Your task to perform on an android device: Show me productivity apps on the Play Store Image 0: 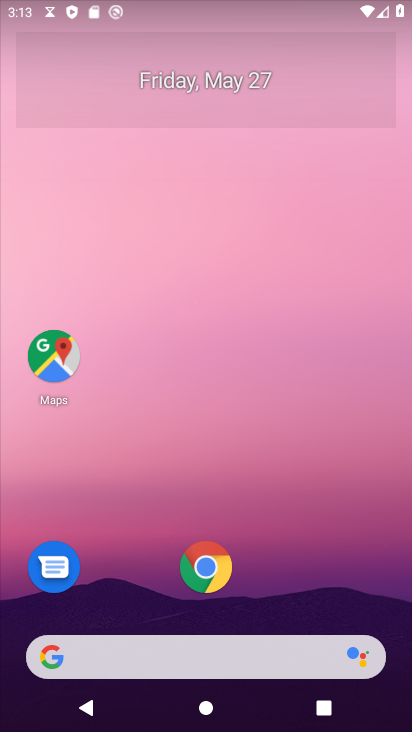
Step 0: drag from (148, 624) to (216, 96)
Your task to perform on an android device: Show me productivity apps on the Play Store Image 1: 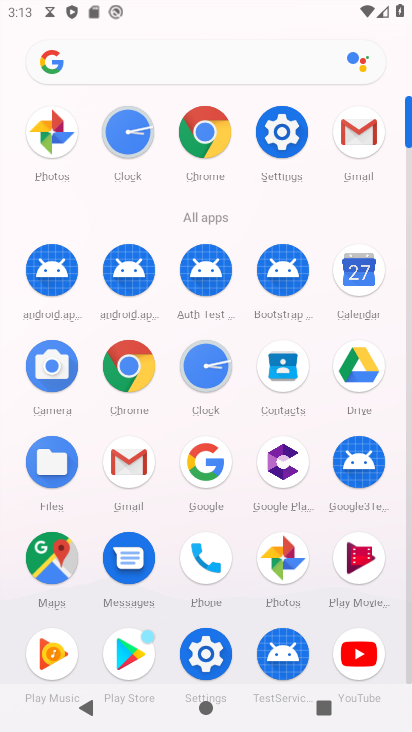
Step 1: click (142, 650)
Your task to perform on an android device: Show me productivity apps on the Play Store Image 2: 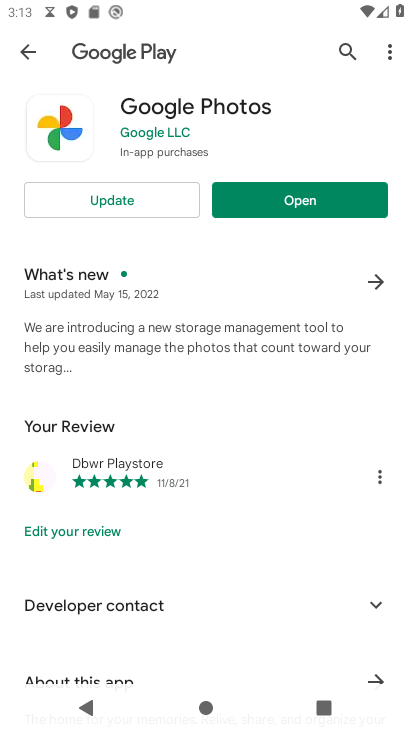
Step 2: click (26, 45)
Your task to perform on an android device: Show me productivity apps on the Play Store Image 3: 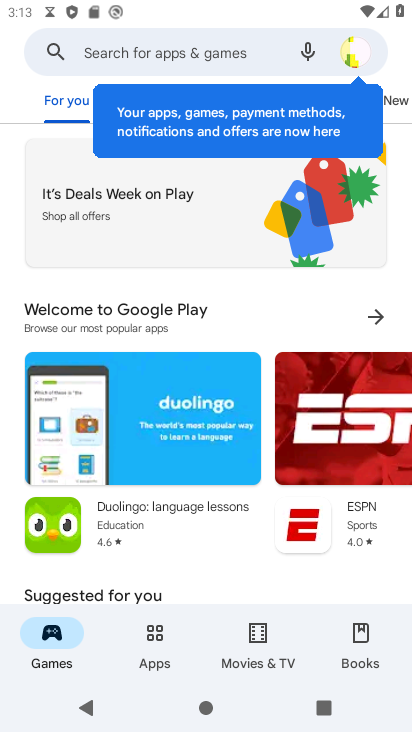
Step 3: click (166, 661)
Your task to perform on an android device: Show me productivity apps on the Play Store Image 4: 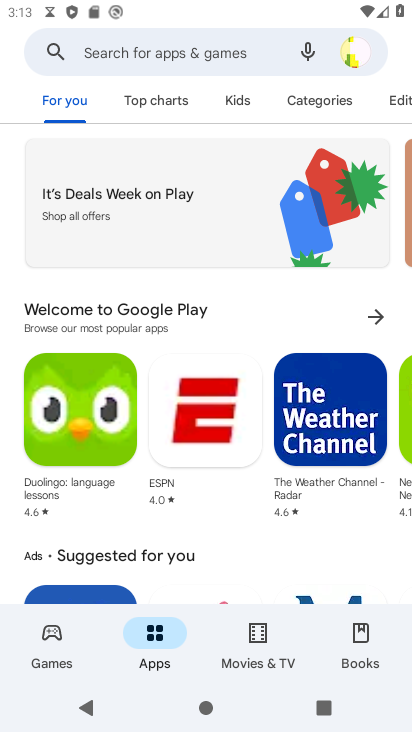
Step 4: drag from (213, 510) to (254, 341)
Your task to perform on an android device: Show me productivity apps on the Play Store Image 5: 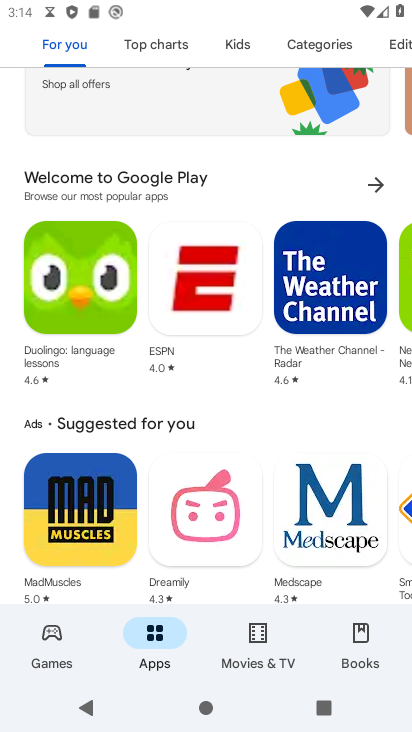
Step 5: drag from (224, 534) to (284, 169)
Your task to perform on an android device: Show me productivity apps on the Play Store Image 6: 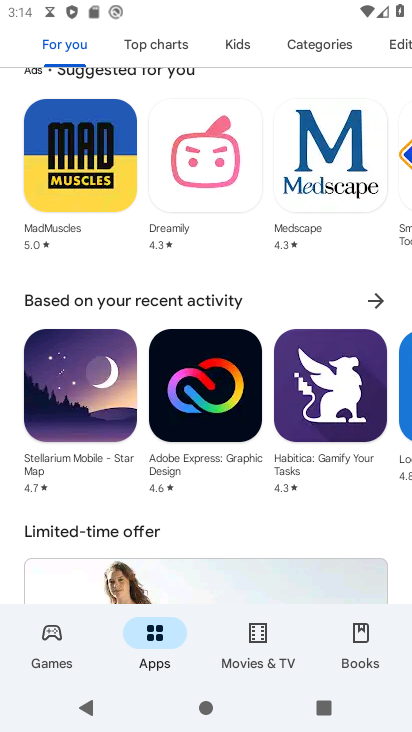
Step 6: drag from (195, 527) to (310, 53)
Your task to perform on an android device: Show me productivity apps on the Play Store Image 7: 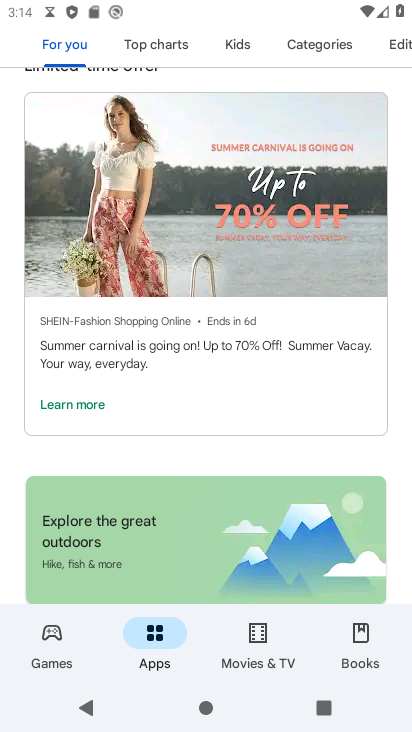
Step 7: drag from (218, 542) to (302, 149)
Your task to perform on an android device: Show me productivity apps on the Play Store Image 8: 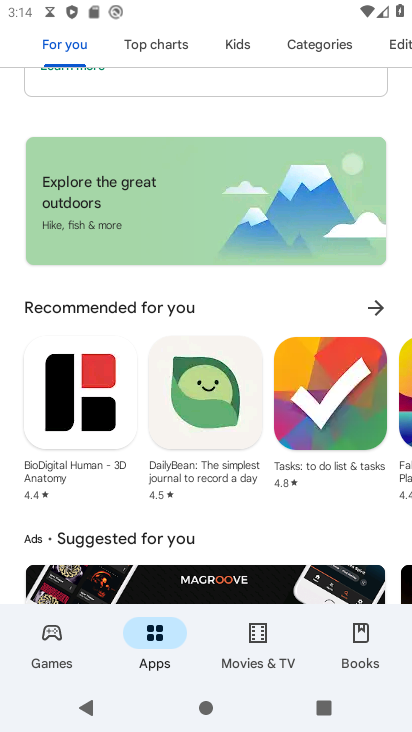
Step 8: drag from (229, 547) to (319, 113)
Your task to perform on an android device: Show me productivity apps on the Play Store Image 9: 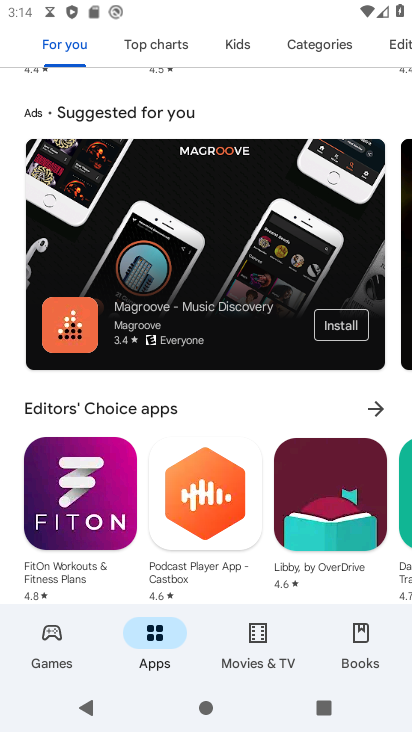
Step 9: drag from (248, 462) to (315, 42)
Your task to perform on an android device: Show me productivity apps on the Play Store Image 10: 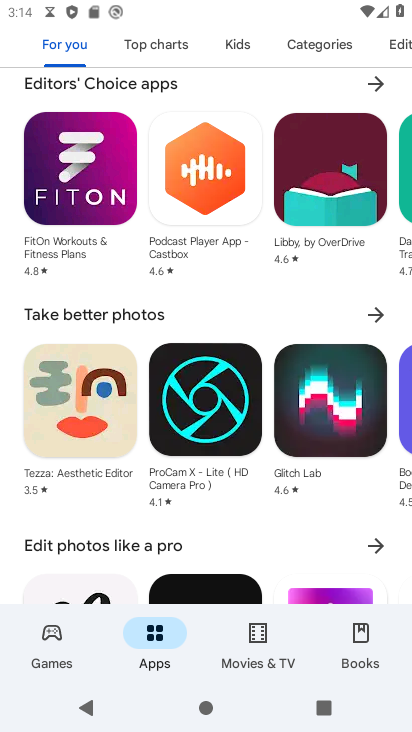
Step 10: drag from (253, 524) to (303, 103)
Your task to perform on an android device: Show me productivity apps on the Play Store Image 11: 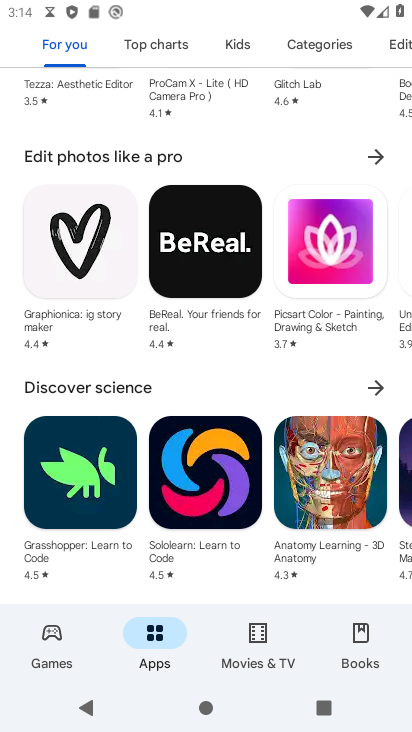
Step 11: drag from (277, 541) to (373, 26)
Your task to perform on an android device: Show me productivity apps on the Play Store Image 12: 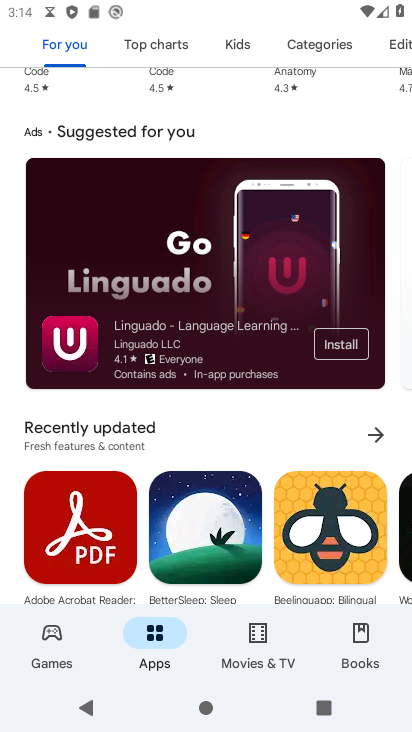
Step 12: drag from (290, 442) to (345, 2)
Your task to perform on an android device: Show me productivity apps on the Play Store Image 13: 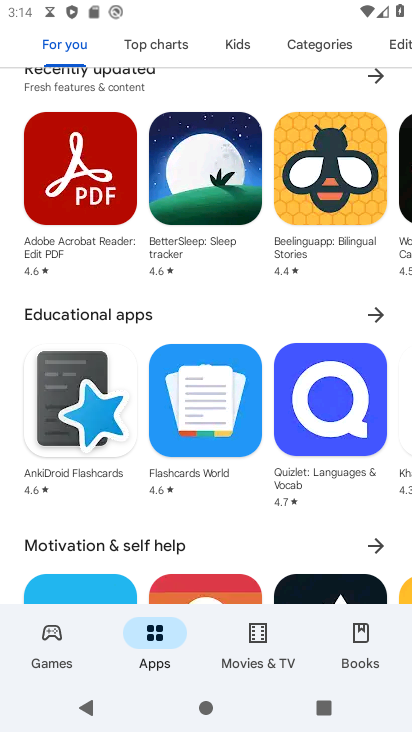
Step 13: drag from (266, 496) to (396, 7)
Your task to perform on an android device: Show me productivity apps on the Play Store Image 14: 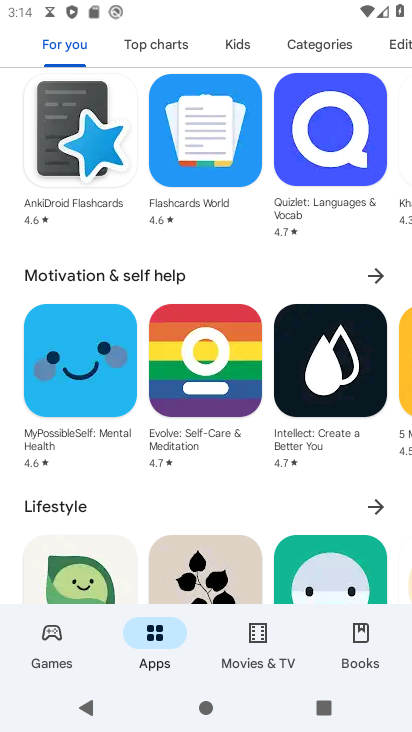
Step 14: drag from (294, 551) to (361, 0)
Your task to perform on an android device: Show me productivity apps on the Play Store Image 15: 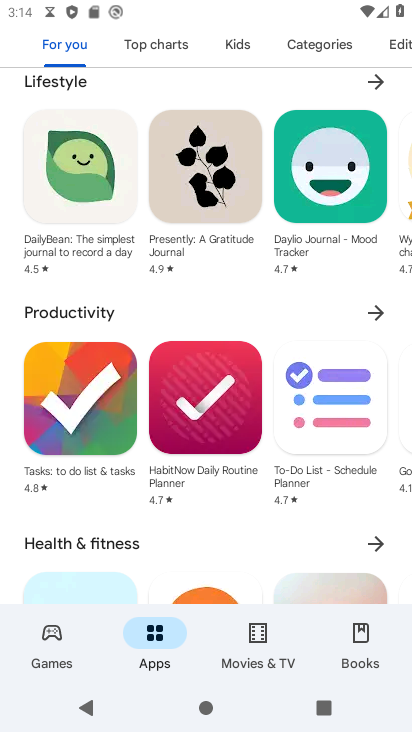
Step 15: drag from (291, 428) to (302, 356)
Your task to perform on an android device: Show me productivity apps on the Play Store Image 16: 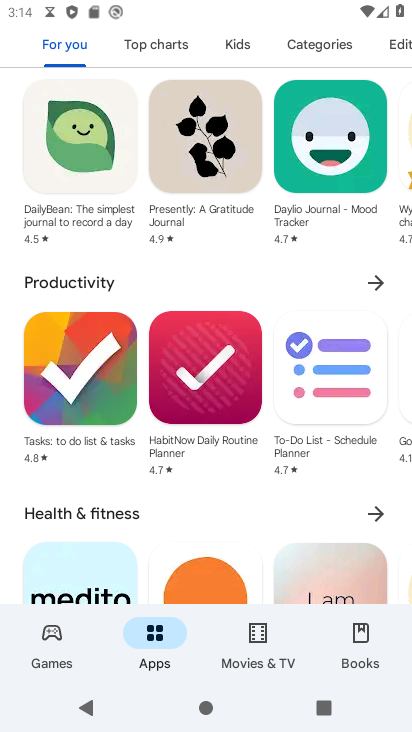
Step 16: click (368, 284)
Your task to perform on an android device: Show me productivity apps on the Play Store Image 17: 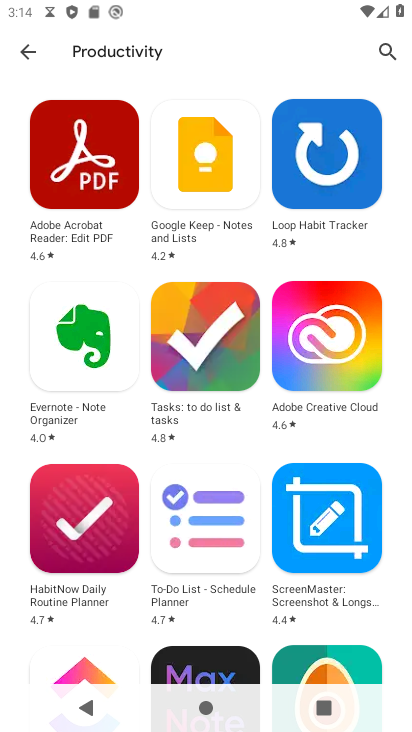
Step 17: task complete